Your task to perform on an android device: stop showing notifications on the lock screen Image 0: 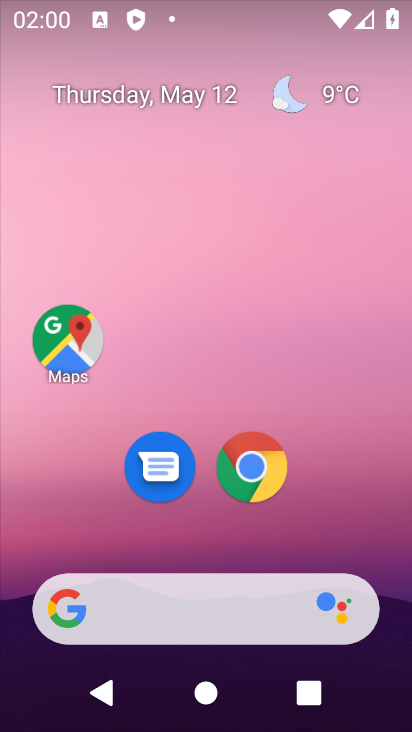
Step 0: drag from (347, 536) to (372, 163)
Your task to perform on an android device: stop showing notifications on the lock screen Image 1: 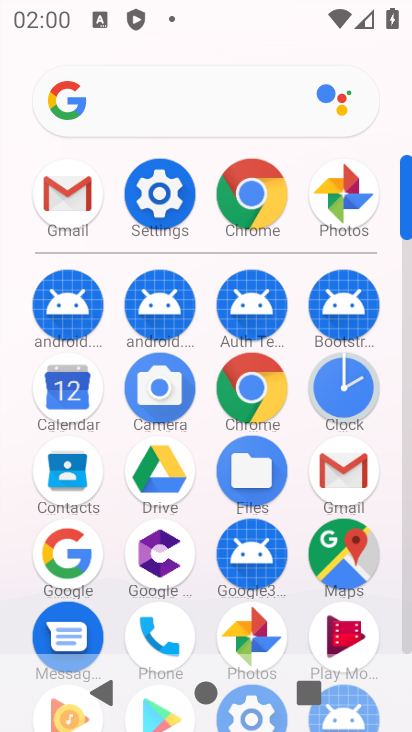
Step 1: click (152, 186)
Your task to perform on an android device: stop showing notifications on the lock screen Image 2: 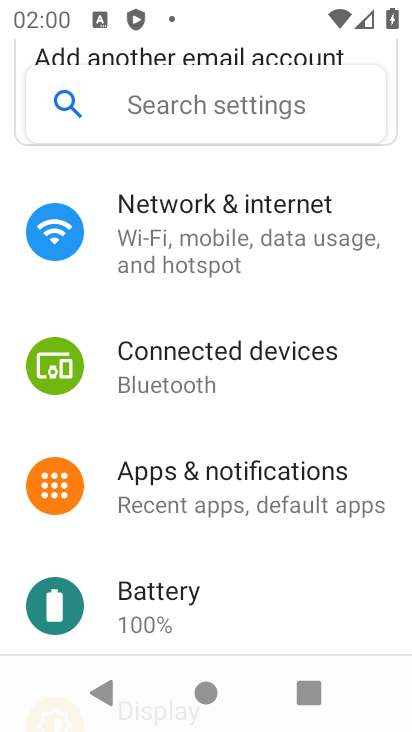
Step 2: click (206, 475)
Your task to perform on an android device: stop showing notifications on the lock screen Image 3: 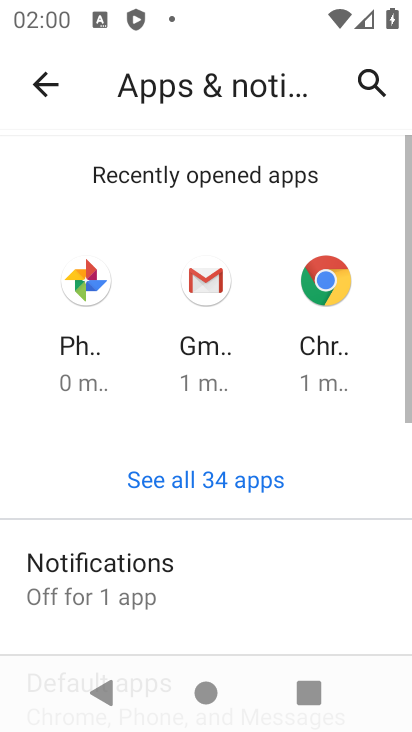
Step 3: drag from (192, 594) to (241, 232)
Your task to perform on an android device: stop showing notifications on the lock screen Image 4: 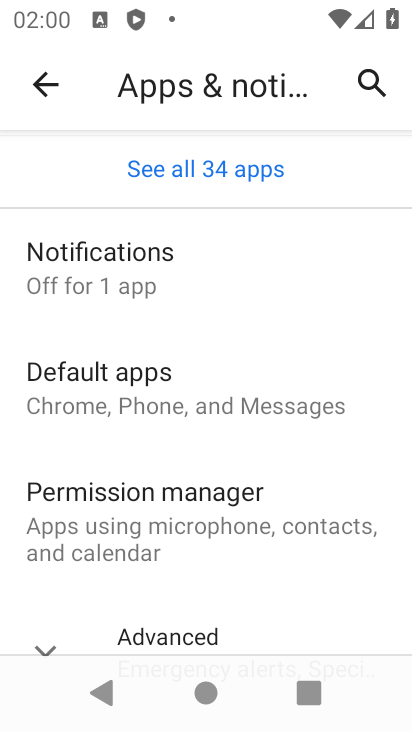
Step 4: click (131, 258)
Your task to perform on an android device: stop showing notifications on the lock screen Image 5: 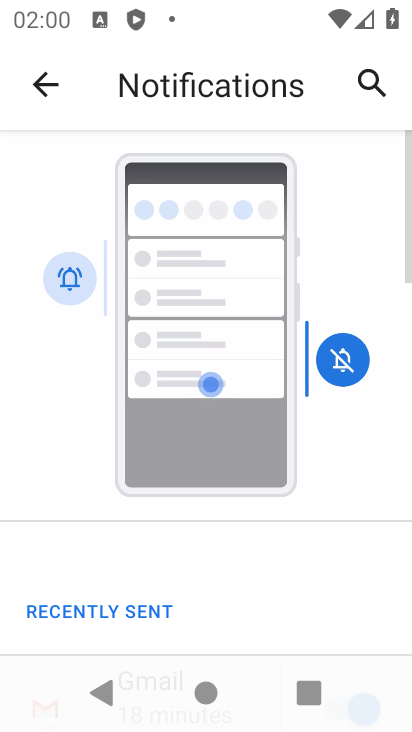
Step 5: drag from (196, 573) to (211, 158)
Your task to perform on an android device: stop showing notifications on the lock screen Image 6: 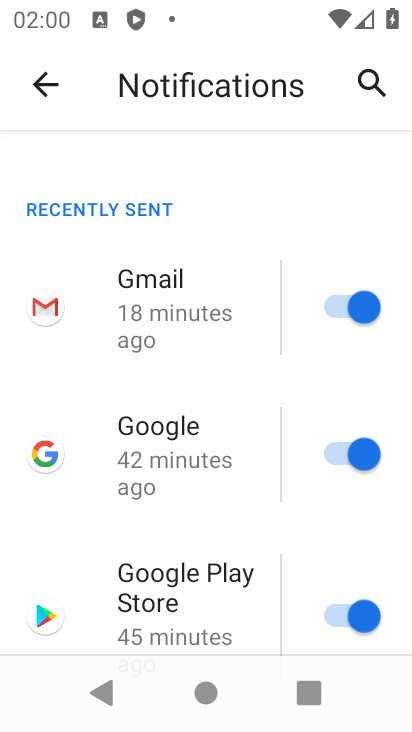
Step 6: drag from (142, 604) to (180, 197)
Your task to perform on an android device: stop showing notifications on the lock screen Image 7: 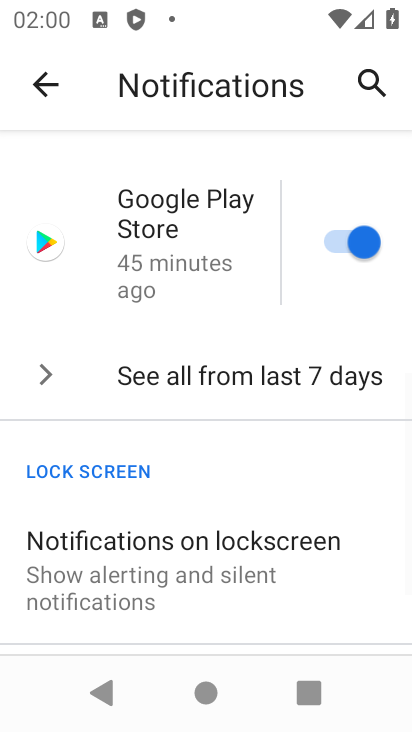
Step 7: click (112, 573)
Your task to perform on an android device: stop showing notifications on the lock screen Image 8: 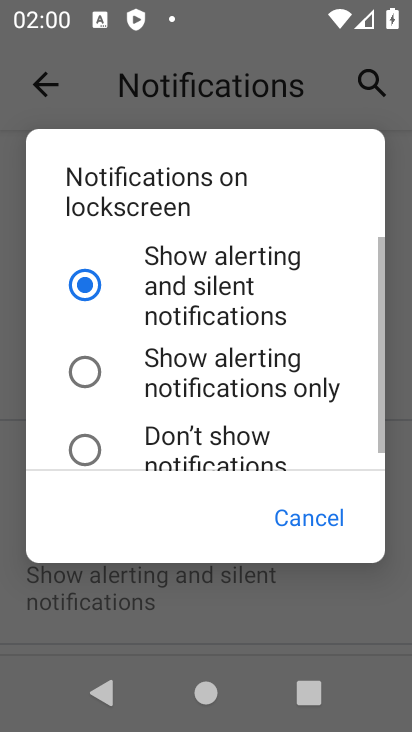
Step 8: click (172, 437)
Your task to perform on an android device: stop showing notifications on the lock screen Image 9: 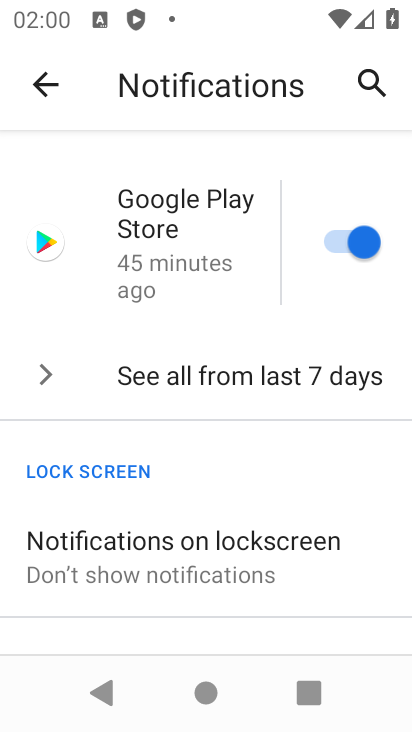
Step 9: task complete